Your task to perform on an android device: What's on my calendar tomorrow? Image 0: 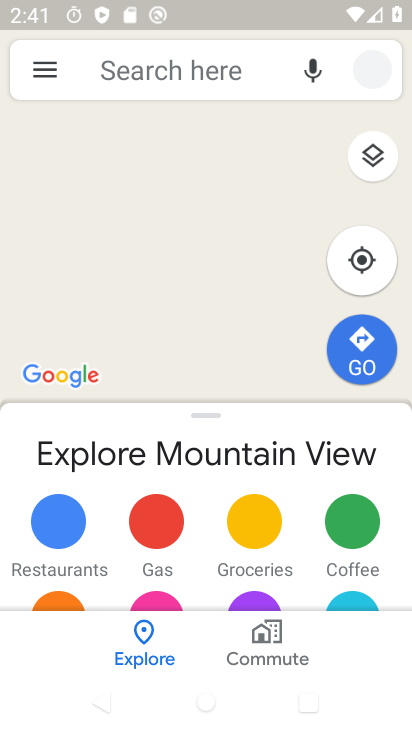
Step 0: press home button
Your task to perform on an android device: What's on my calendar tomorrow? Image 1: 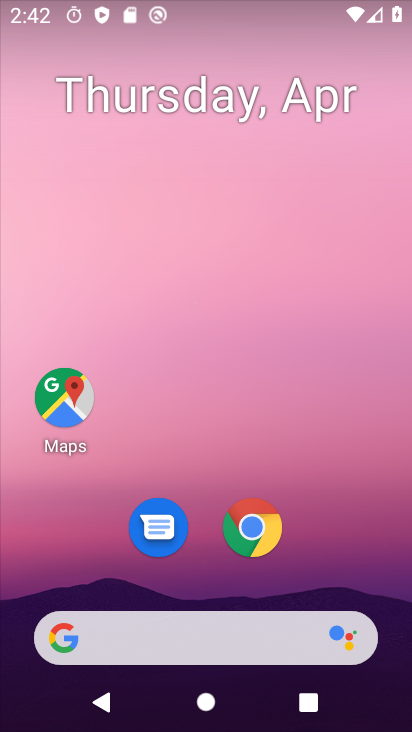
Step 1: drag from (333, 546) to (303, 126)
Your task to perform on an android device: What's on my calendar tomorrow? Image 2: 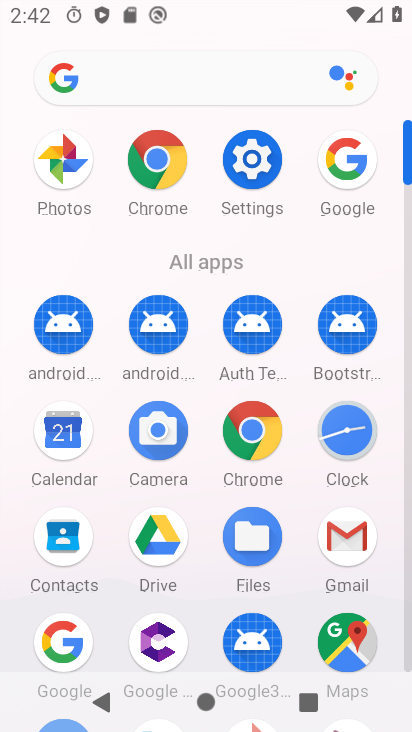
Step 2: click (33, 429)
Your task to perform on an android device: What's on my calendar tomorrow? Image 3: 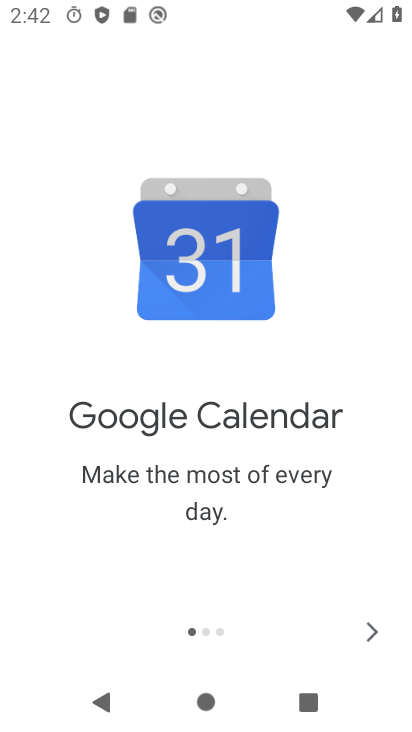
Step 3: click (372, 622)
Your task to perform on an android device: What's on my calendar tomorrow? Image 4: 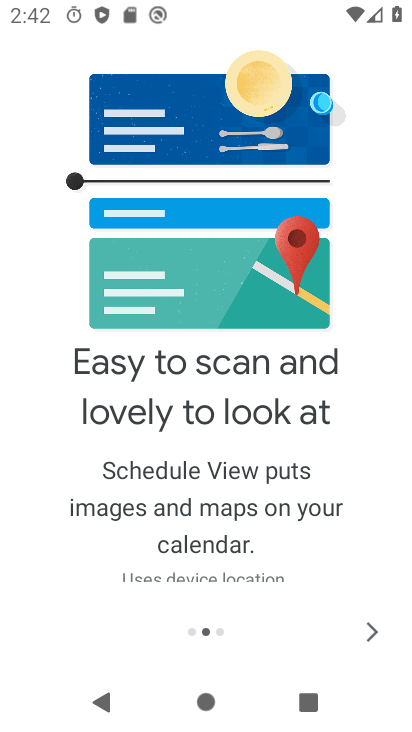
Step 4: click (371, 623)
Your task to perform on an android device: What's on my calendar tomorrow? Image 5: 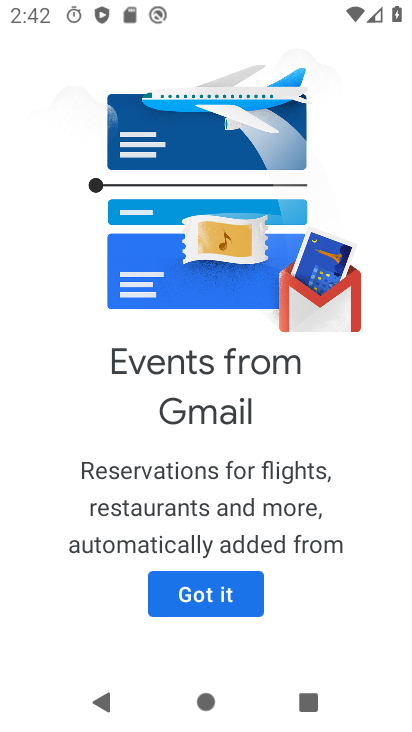
Step 5: click (234, 581)
Your task to perform on an android device: What's on my calendar tomorrow? Image 6: 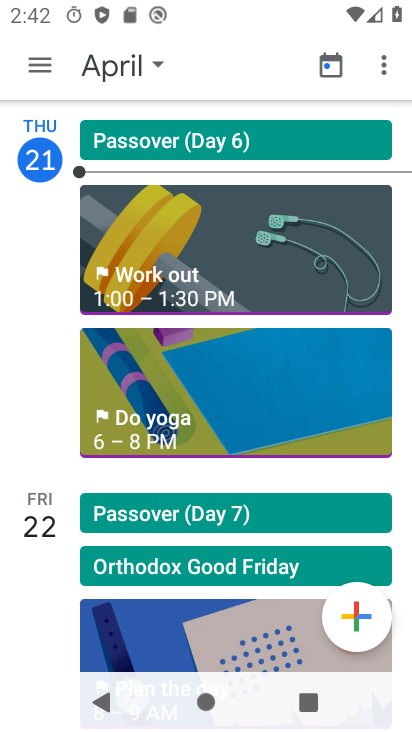
Step 6: task complete